Your task to perform on an android device: Open Google Chrome Image 0: 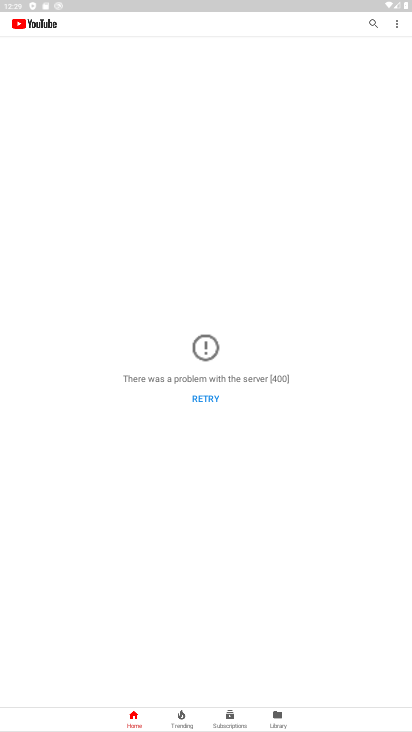
Step 0: press home button
Your task to perform on an android device: Open Google Chrome Image 1: 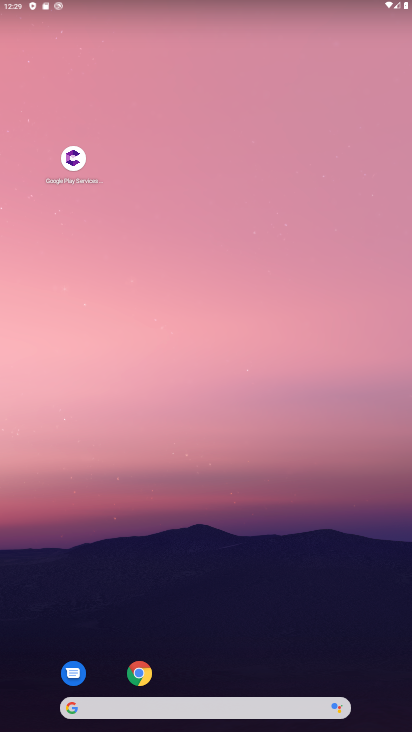
Step 1: drag from (152, 690) to (110, 327)
Your task to perform on an android device: Open Google Chrome Image 2: 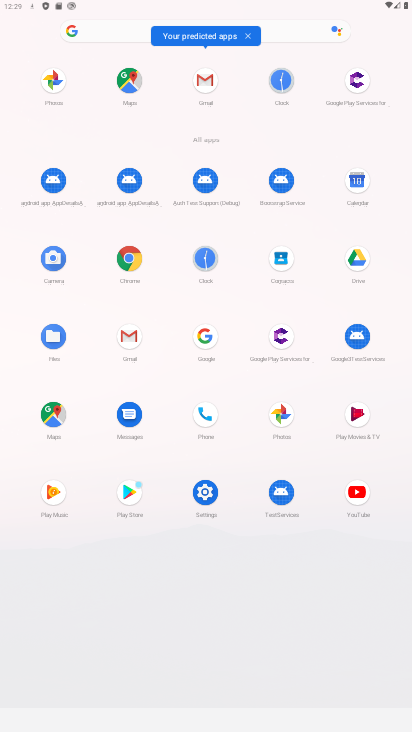
Step 2: click (127, 248)
Your task to perform on an android device: Open Google Chrome Image 3: 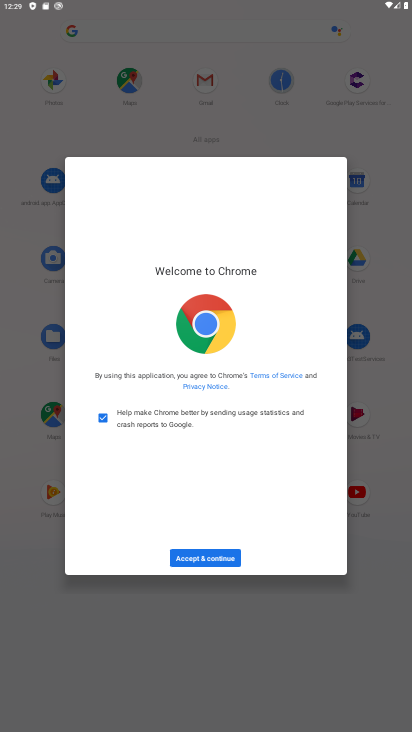
Step 3: click (202, 556)
Your task to perform on an android device: Open Google Chrome Image 4: 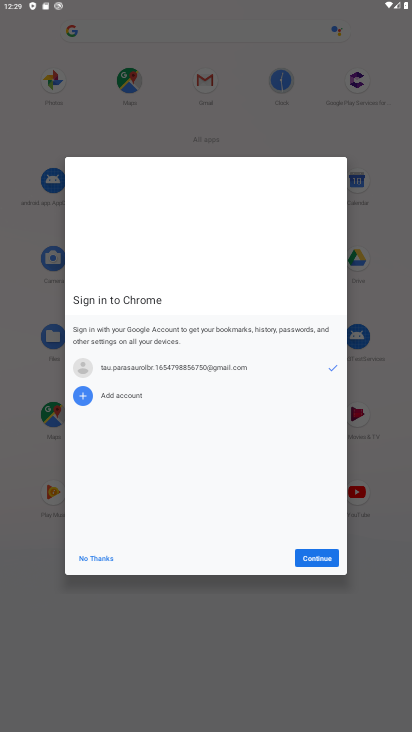
Step 4: click (314, 558)
Your task to perform on an android device: Open Google Chrome Image 5: 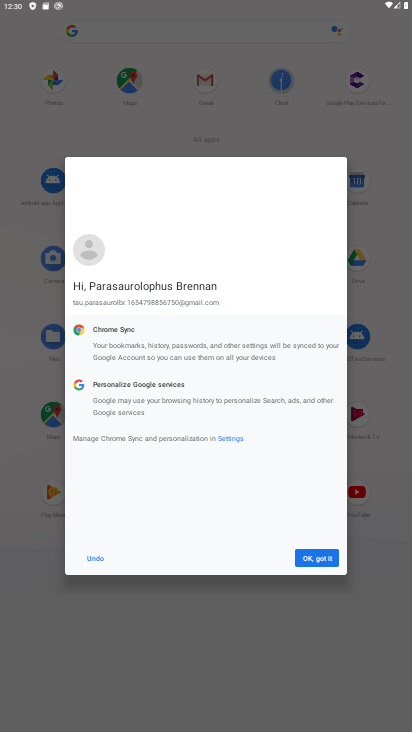
Step 5: click (314, 562)
Your task to perform on an android device: Open Google Chrome Image 6: 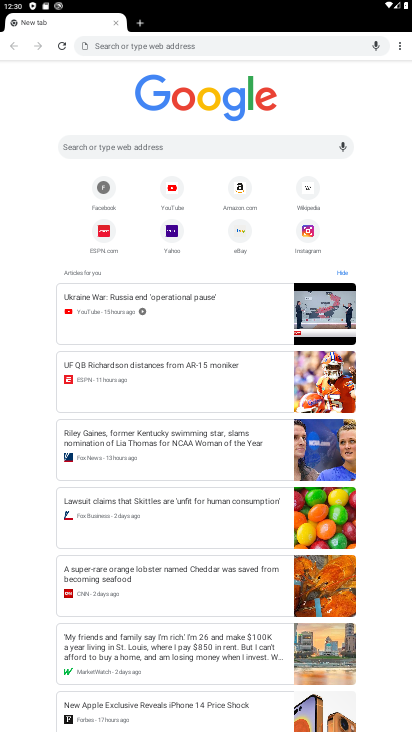
Step 6: task complete